Your task to perform on an android device: See recent photos Image 0: 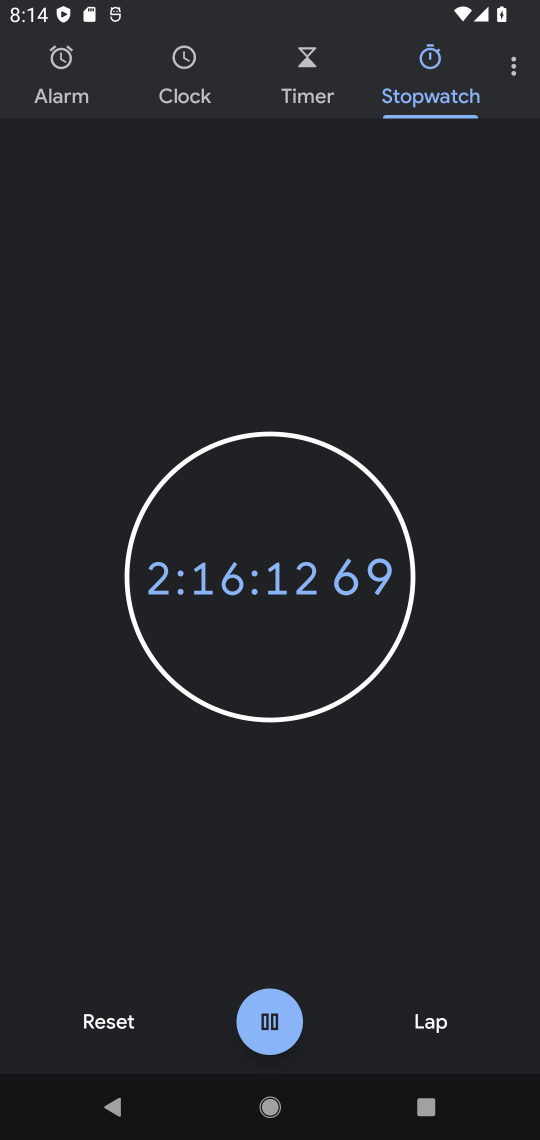
Step 0: press home button
Your task to perform on an android device: See recent photos Image 1: 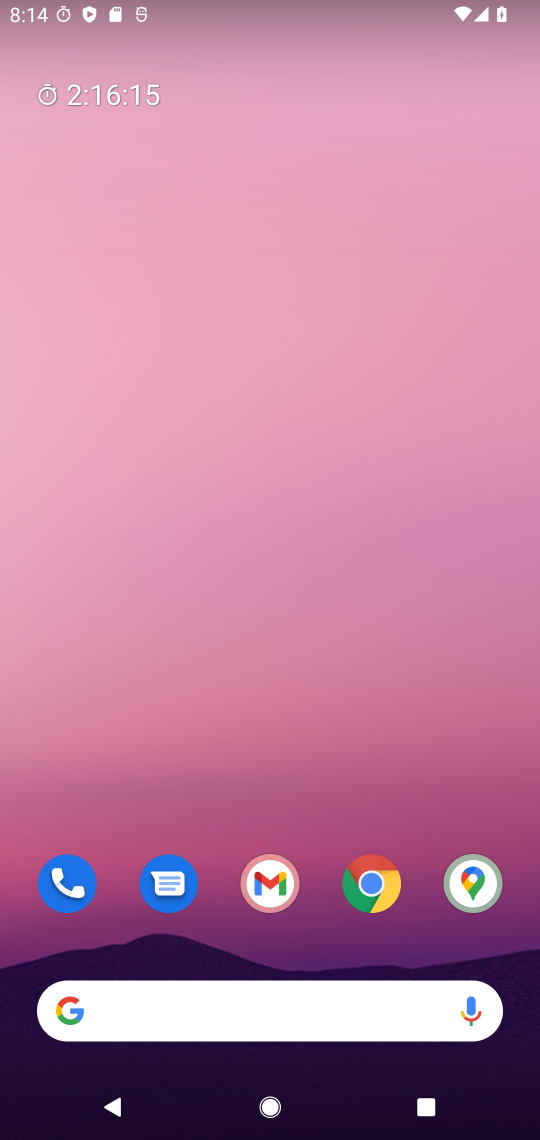
Step 1: drag from (311, 796) to (330, 144)
Your task to perform on an android device: See recent photos Image 2: 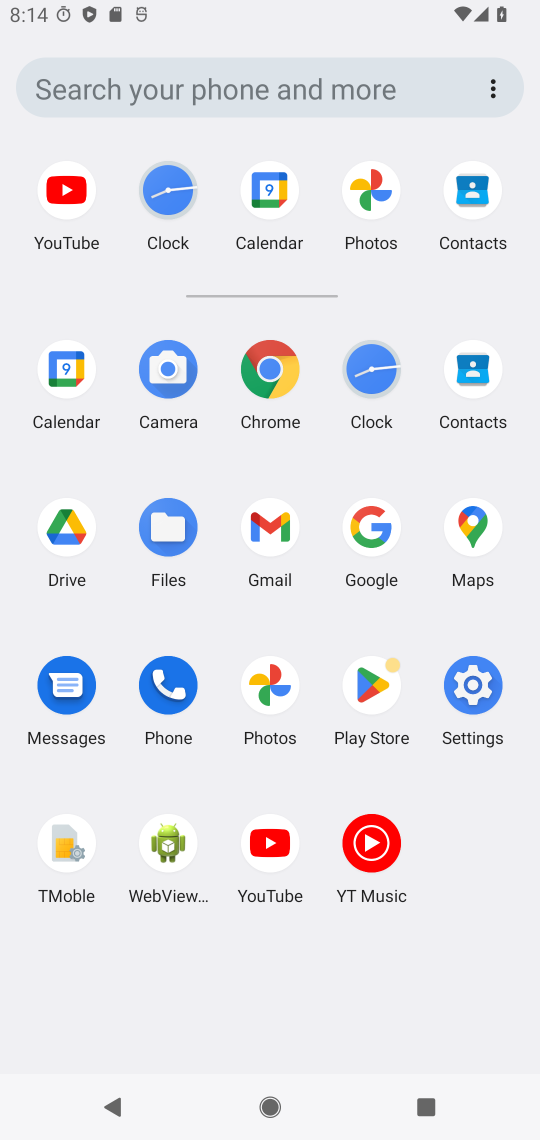
Step 2: click (374, 236)
Your task to perform on an android device: See recent photos Image 3: 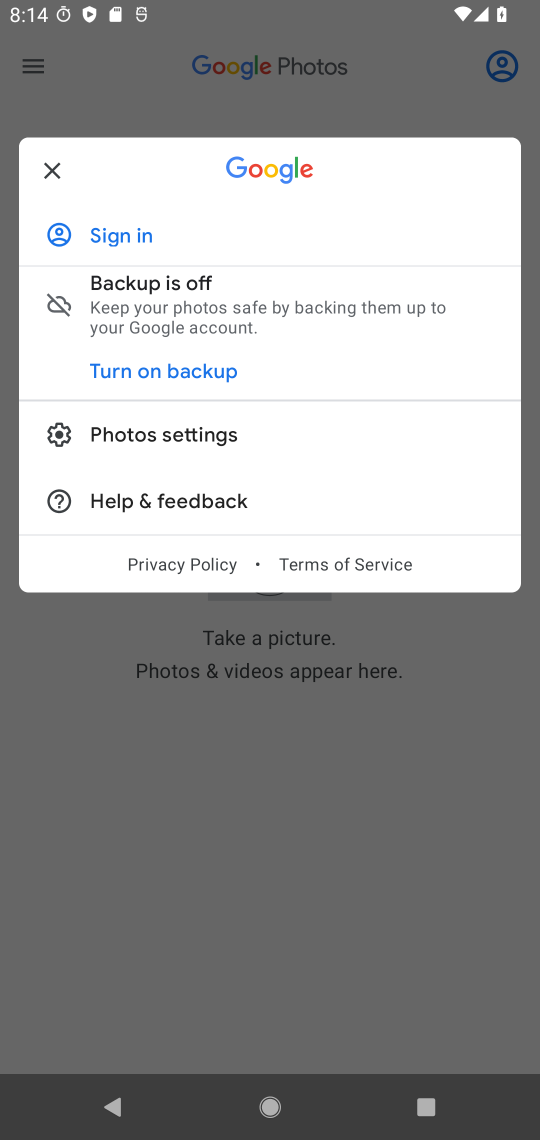
Step 3: click (52, 163)
Your task to perform on an android device: See recent photos Image 4: 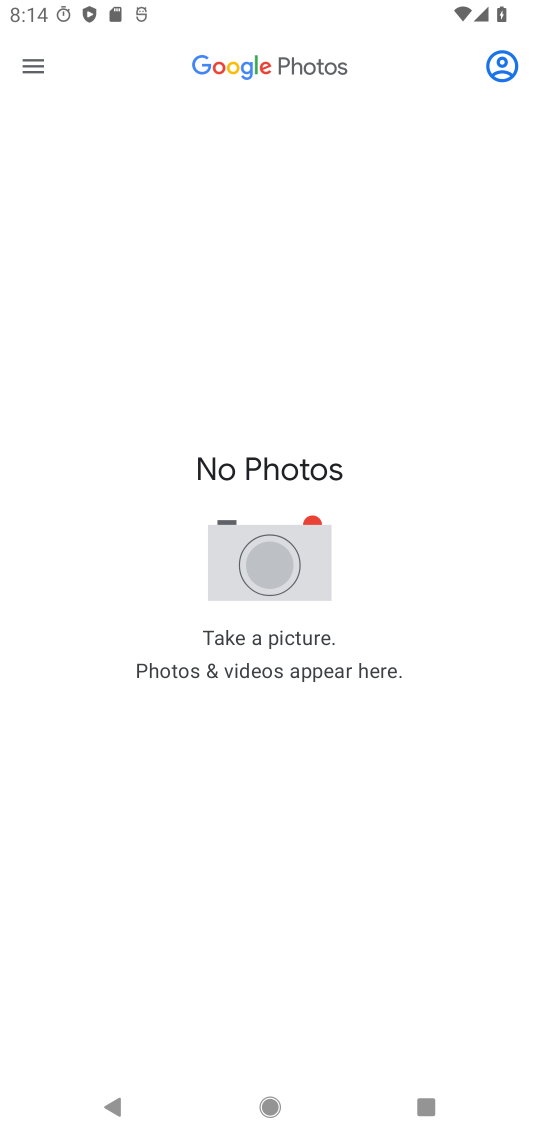
Step 4: task complete